Your task to perform on an android device: turn on notifications settings in the gmail app Image 0: 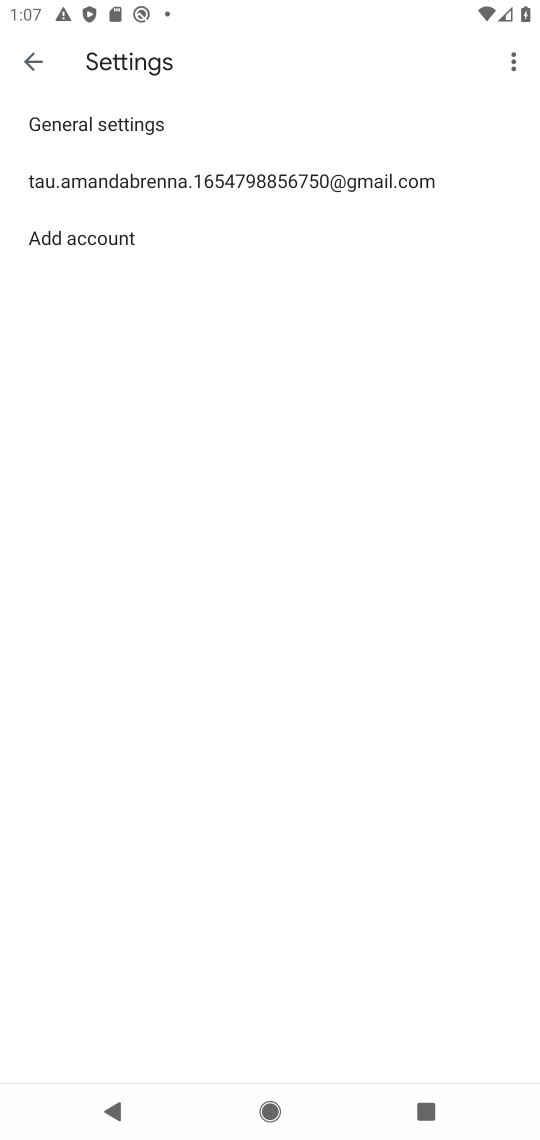
Step 0: click (423, 542)
Your task to perform on an android device: turn on notifications settings in the gmail app Image 1: 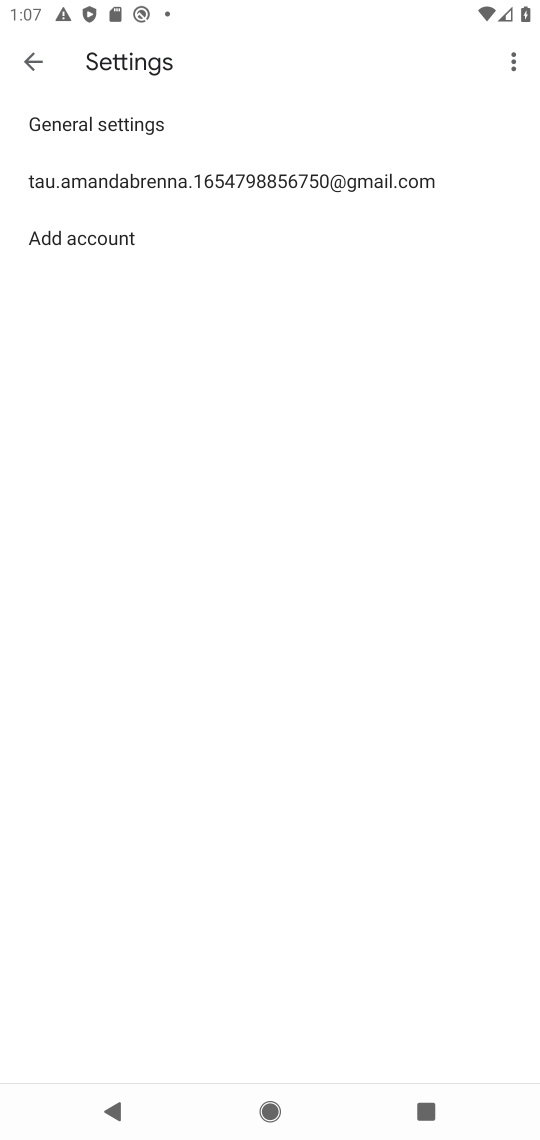
Step 1: press home button
Your task to perform on an android device: turn on notifications settings in the gmail app Image 2: 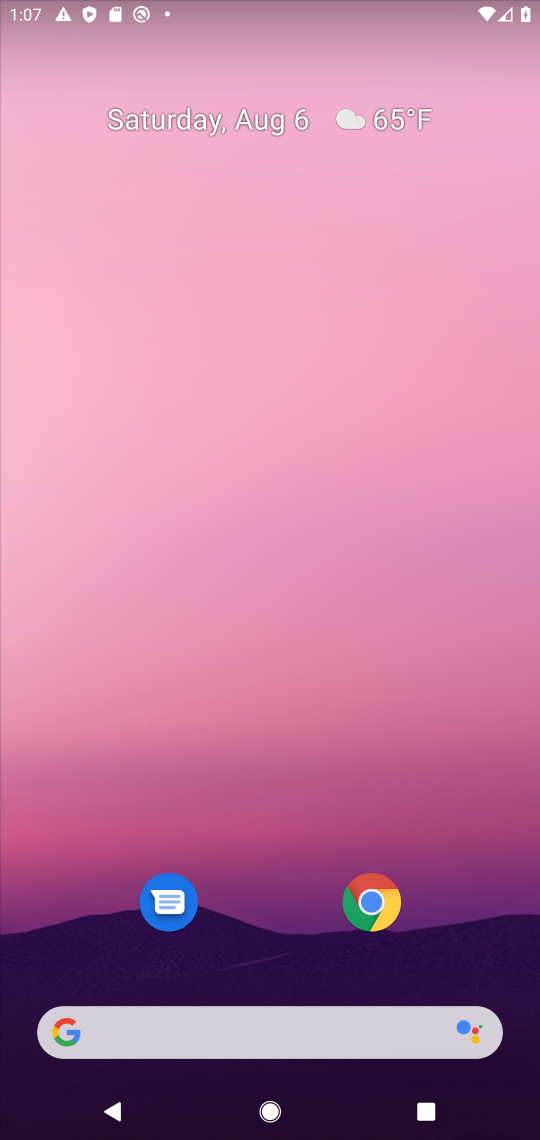
Step 2: drag from (233, 837) to (238, 57)
Your task to perform on an android device: turn on notifications settings in the gmail app Image 3: 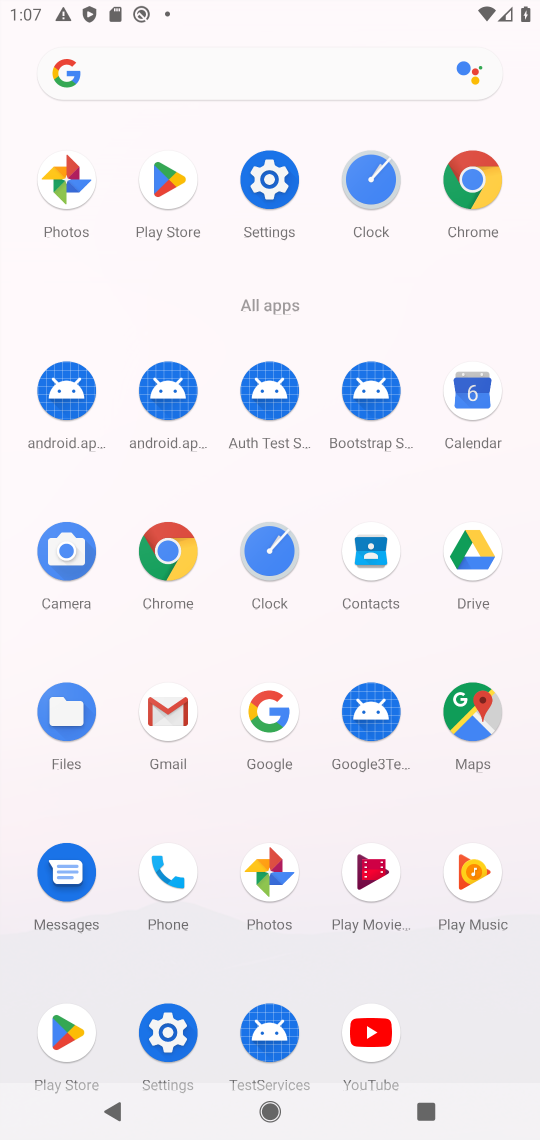
Step 3: click (165, 713)
Your task to perform on an android device: turn on notifications settings in the gmail app Image 4: 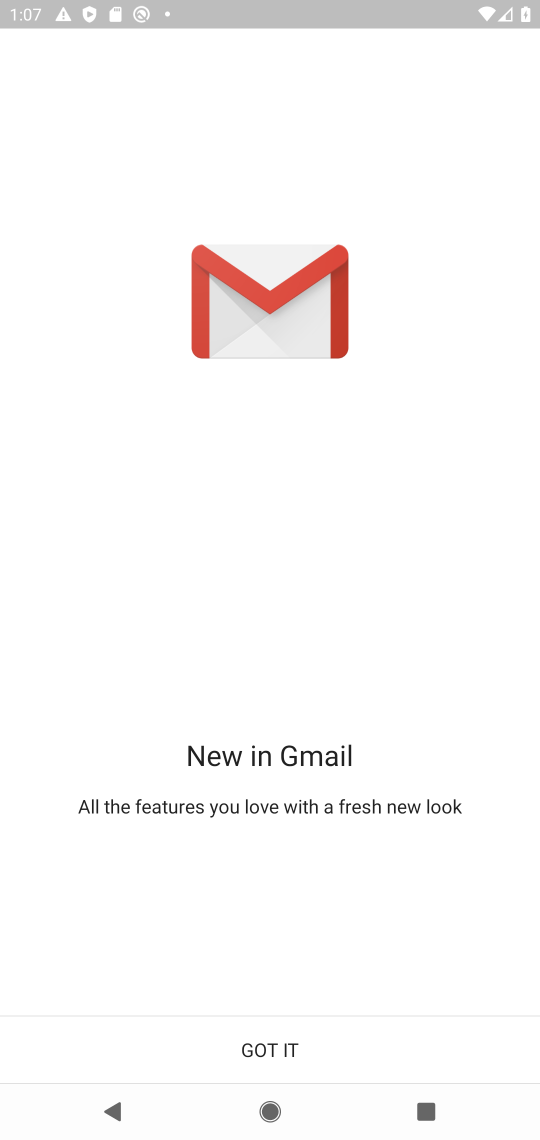
Step 4: click (257, 1045)
Your task to perform on an android device: turn on notifications settings in the gmail app Image 5: 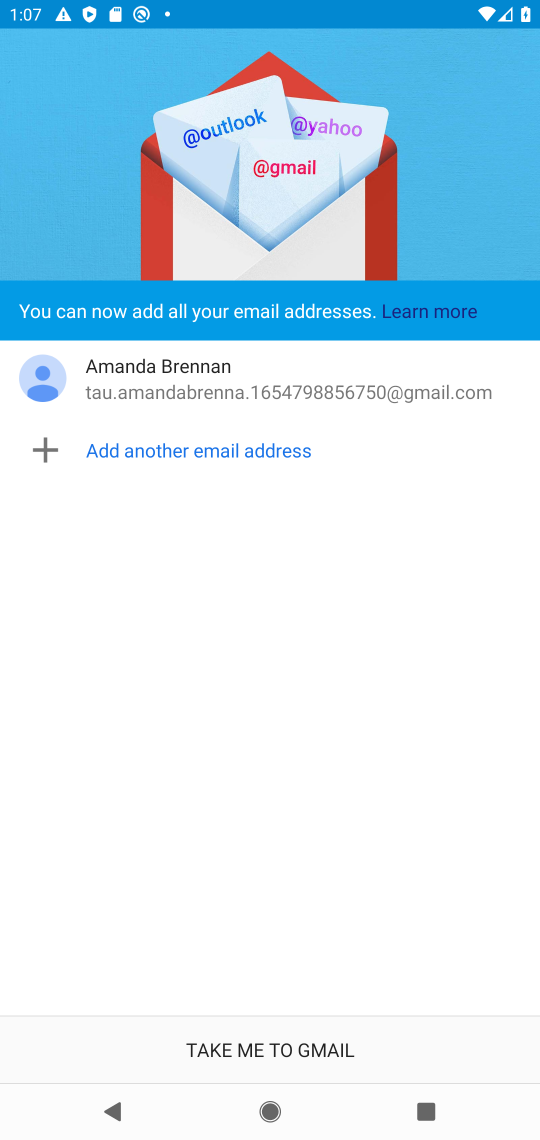
Step 5: click (266, 1045)
Your task to perform on an android device: turn on notifications settings in the gmail app Image 6: 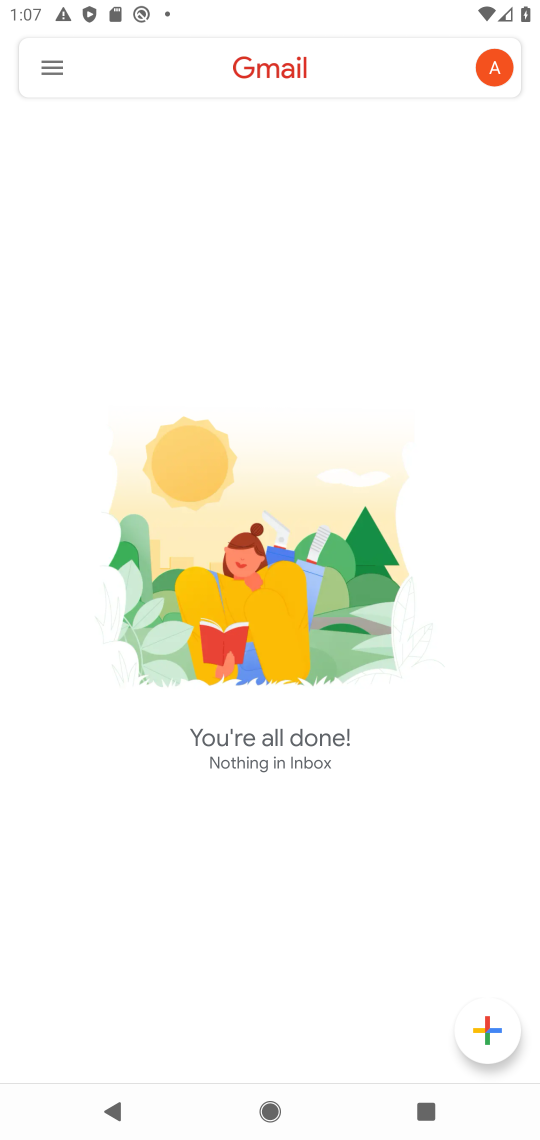
Step 6: click (47, 58)
Your task to perform on an android device: turn on notifications settings in the gmail app Image 7: 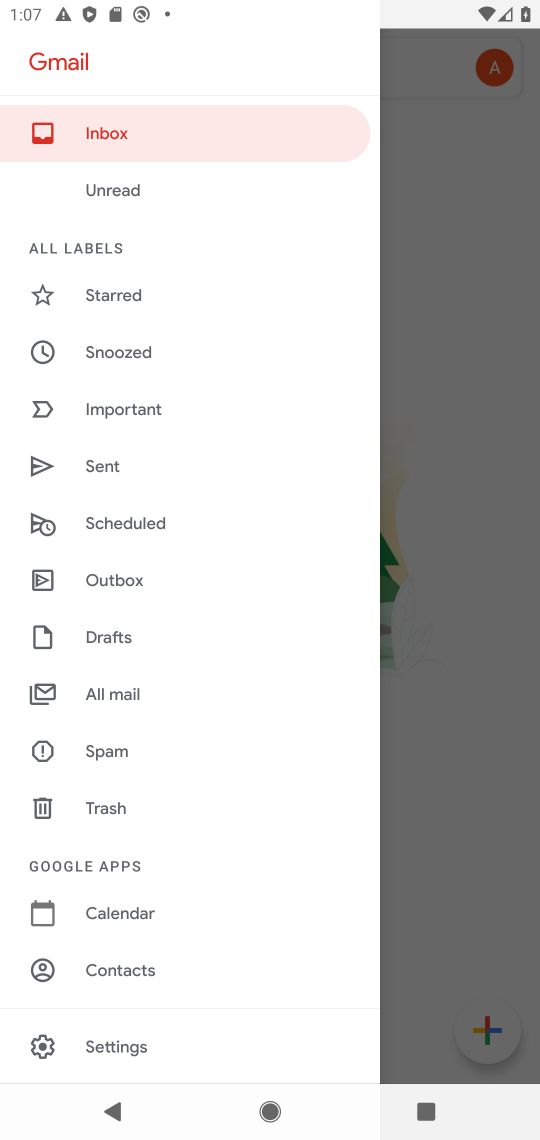
Step 7: click (115, 1038)
Your task to perform on an android device: turn on notifications settings in the gmail app Image 8: 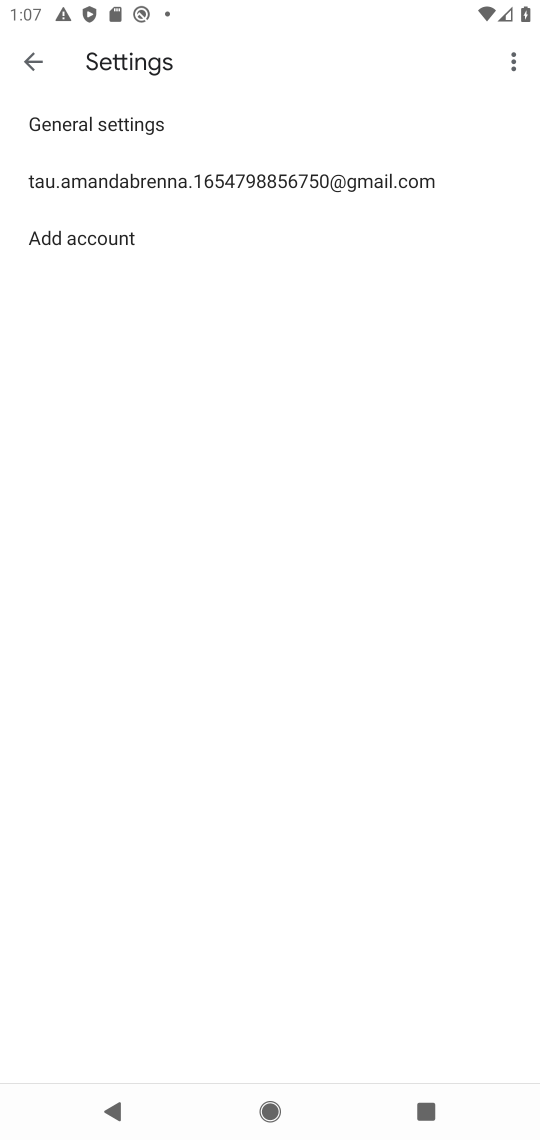
Step 8: click (109, 112)
Your task to perform on an android device: turn on notifications settings in the gmail app Image 9: 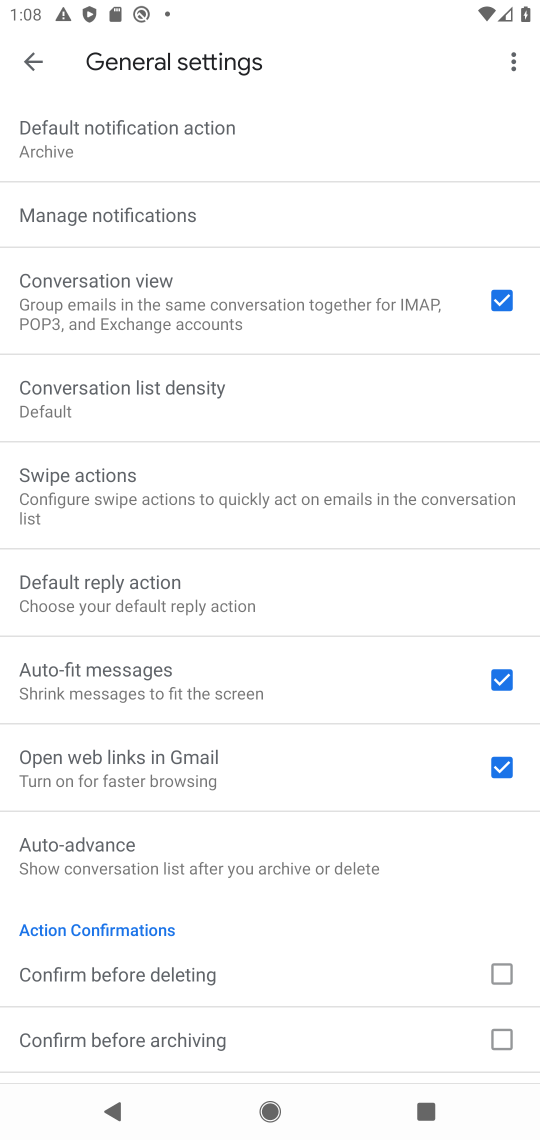
Step 9: click (109, 213)
Your task to perform on an android device: turn on notifications settings in the gmail app Image 10: 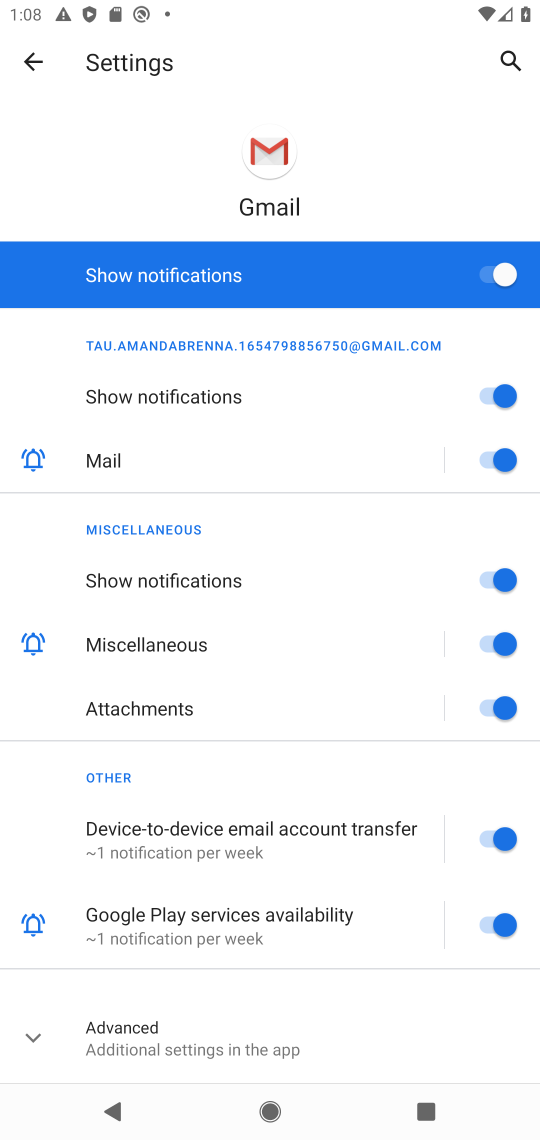
Step 10: task complete